Your task to perform on an android device: open a bookmark in the chrome app Image 0: 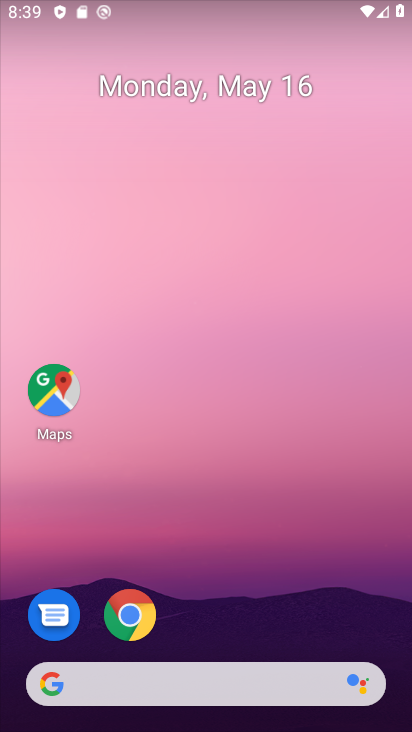
Step 0: click (136, 626)
Your task to perform on an android device: open a bookmark in the chrome app Image 1: 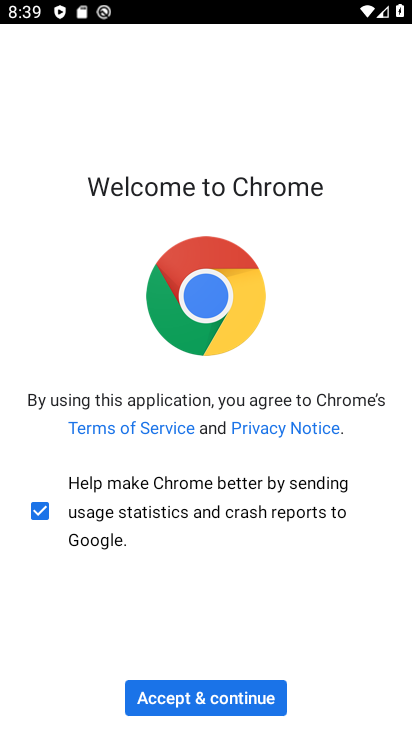
Step 1: click (248, 696)
Your task to perform on an android device: open a bookmark in the chrome app Image 2: 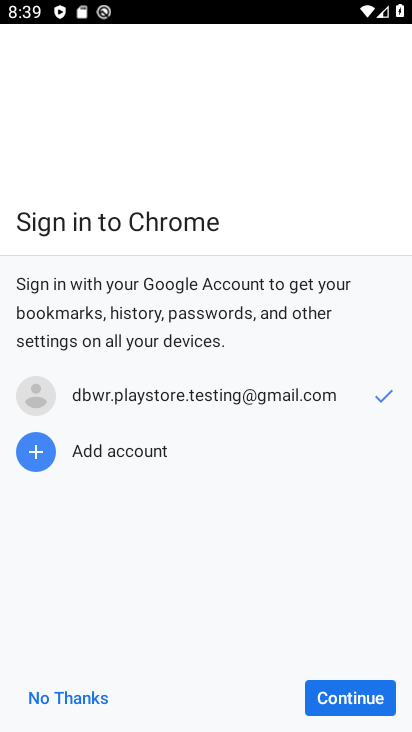
Step 2: click (366, 705)
Your task to perform on an android device: open a bookmark in the chrome app Image 3: 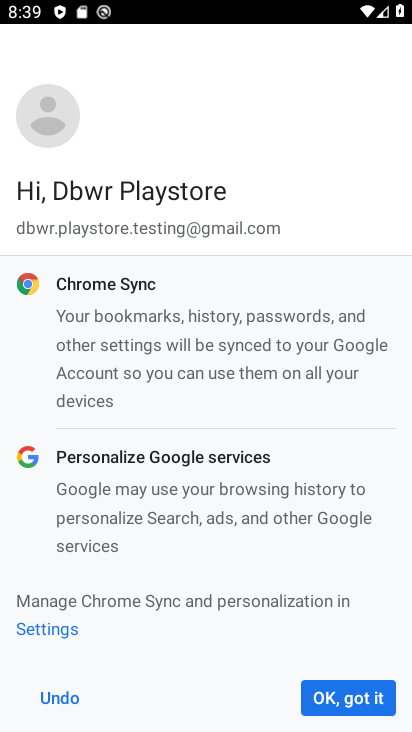
Step 3: click (366, 705)
Your task to perform on an android device: open a bookmark in the chrome app Image 4: 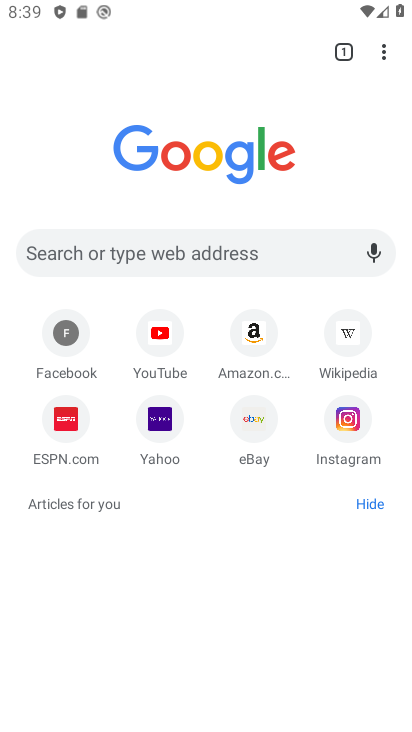
Step 4: drag from (400, 38) to (318, 206)
Your task to perform on an android device: open a bookmark in the chrome app Image 5: 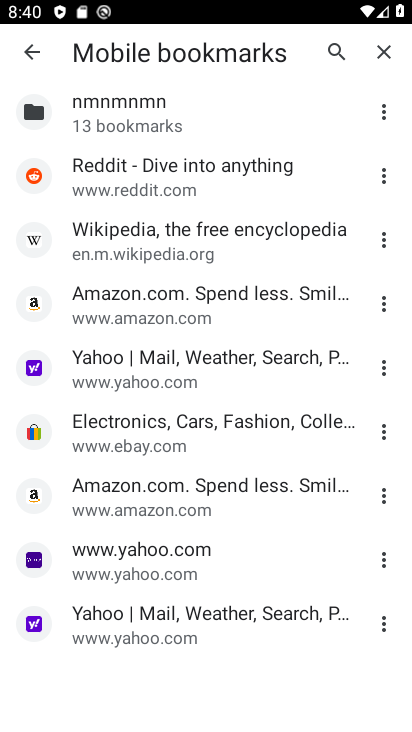
Step 5: click (217, 236)
Your task to perform on an android device: open a bookmark in the chrome app Image 6: 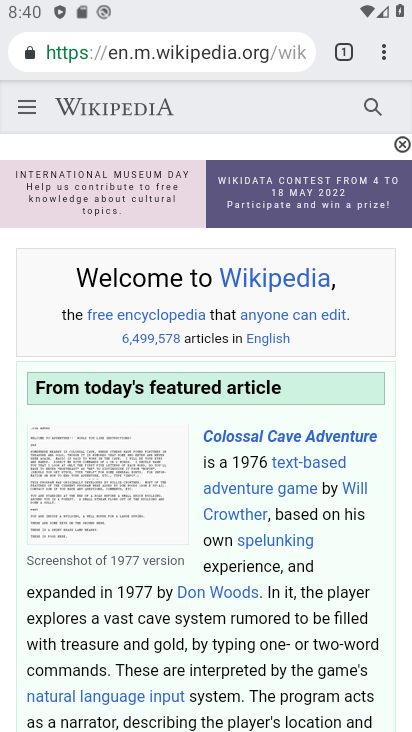
Step 6: task complete